Your task to perform on an android device: set the stopwatch Image 0: 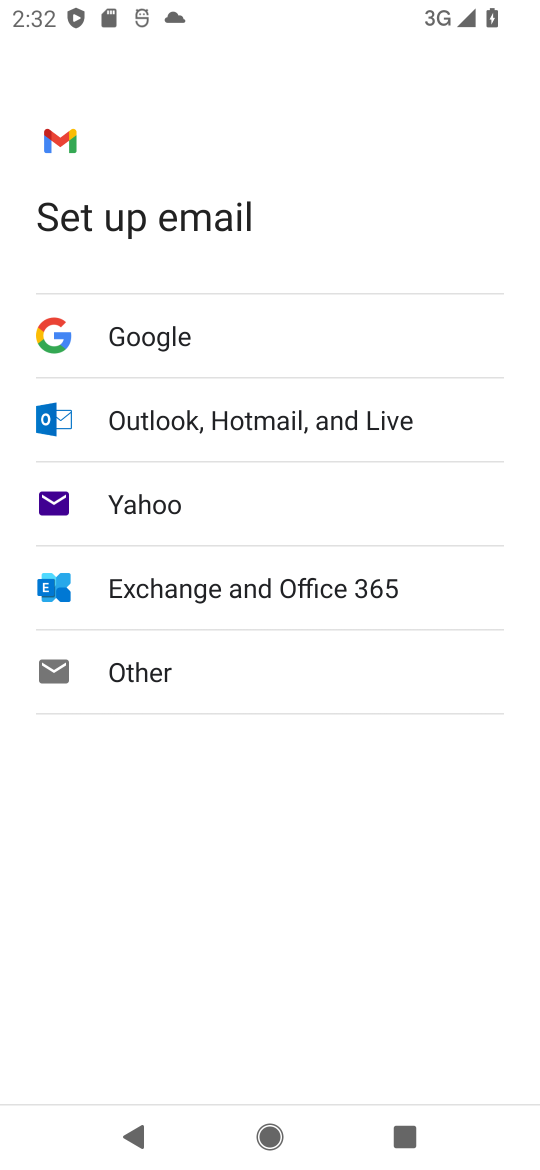
Step 0: press home button
Your task to perform on an android device: set the stopwatch Image 1: 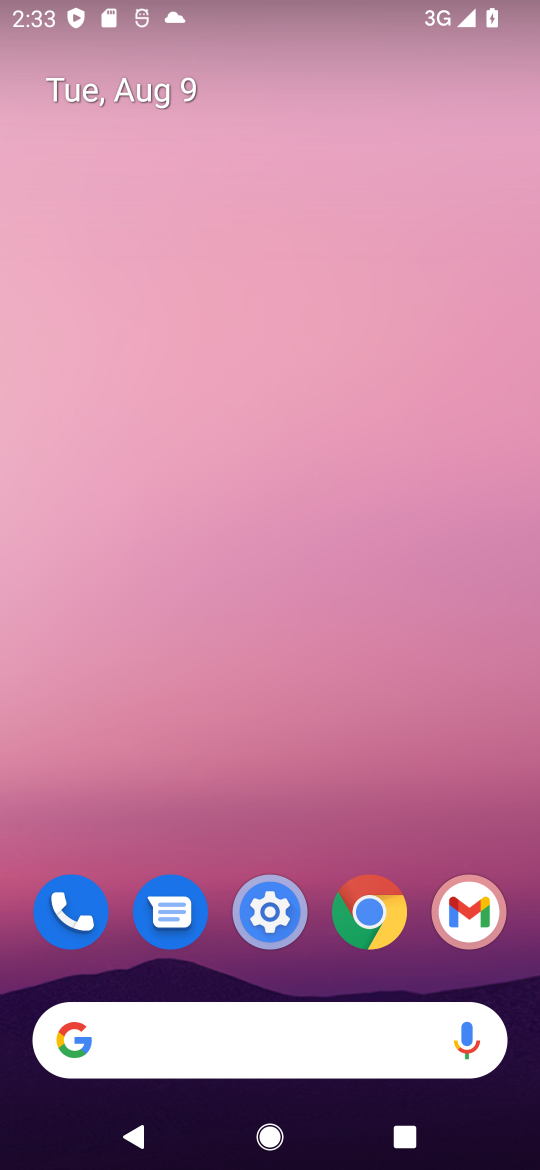
Step 1: drag from (317, 801) to (382, 26)
Your task to perform on an android device: set the stopwatch Image 2: 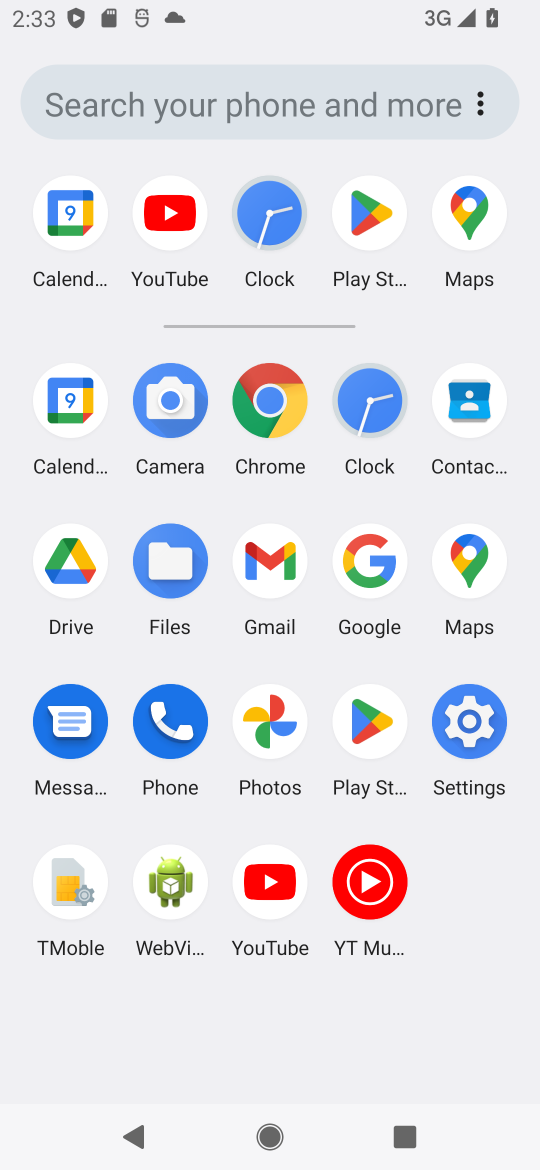
Step 2: click (373, 393)
Your task to perform on an android device: set the stopwatch Image 3: 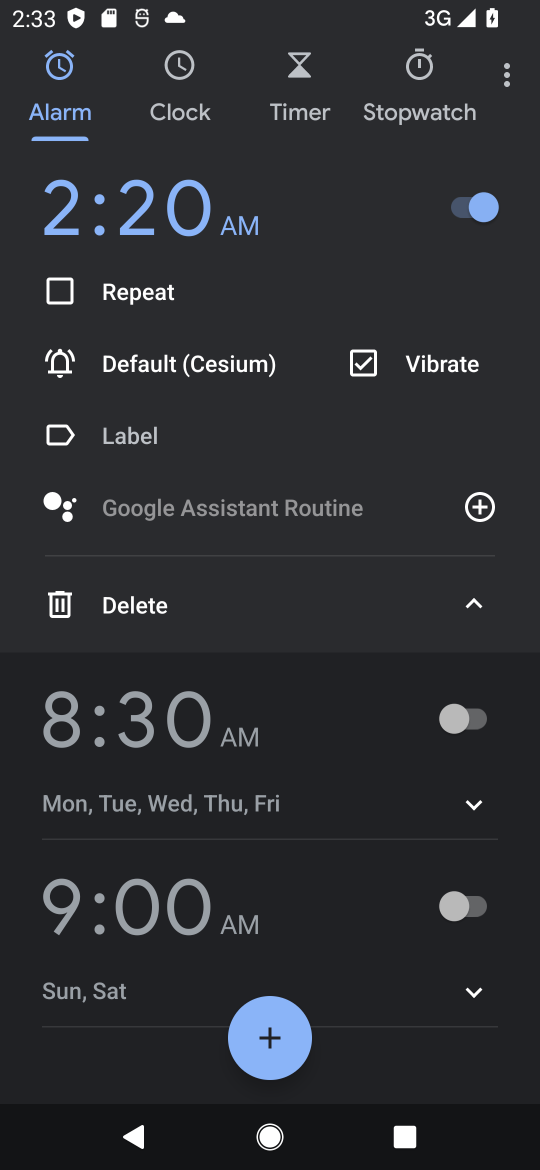
Step 3: click (414, 62)
Your task to perform on an android device: set the stopwatch Image 4: 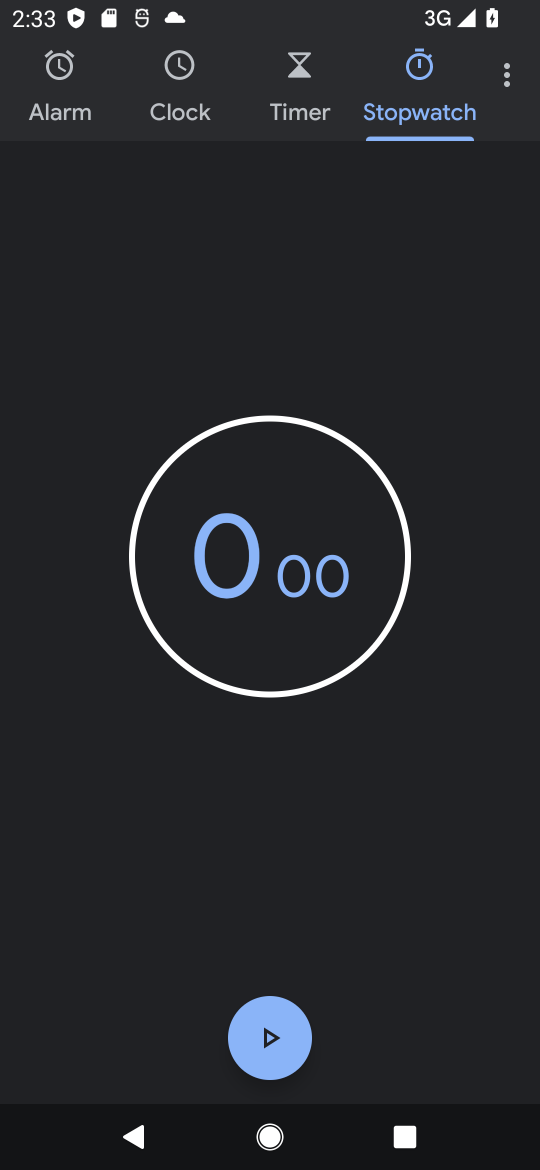
Step 4: task complete